Your task to perform on an android device: Open CNN.com Image 0: 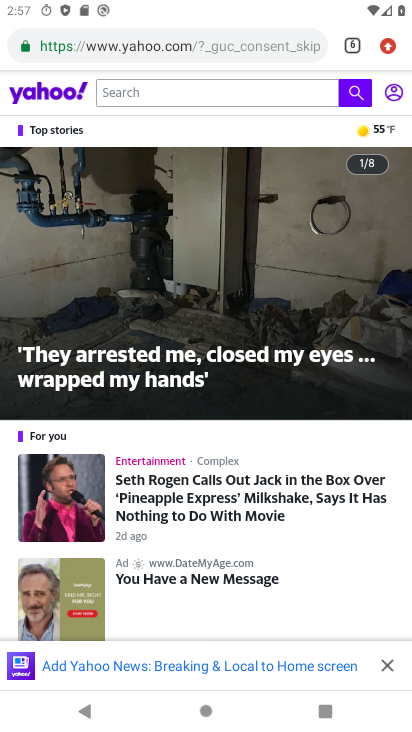
Step 0: drag from (379, 43) to (211, 144)
Your task to perform on an android device: Open CNN.com Image 1: 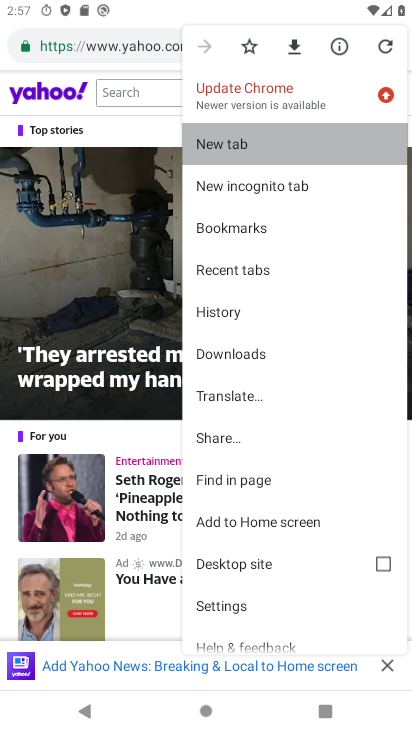
Step 1: click (211, 144)
Your task to perform on an android device: Open CNN.com Image 2: 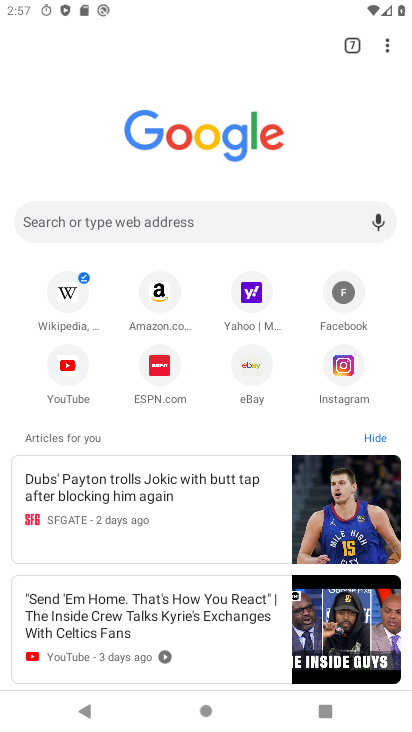
Step 2: click (68, 213)
Your task to perform on an android device: Open CNN.com Image 3: 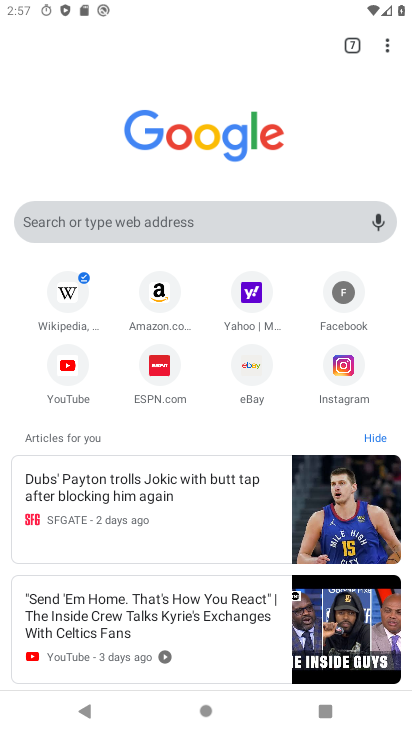
Step 3: click (71, 223)
Your task to perform on an android device: Open CNN.com Image 4: 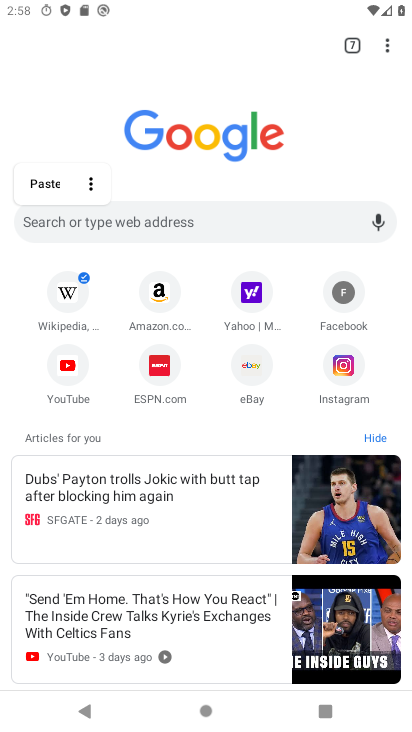
Step 4: type "cnn.com"
Your task to perform on an android device: Open CNN.com Image 5: 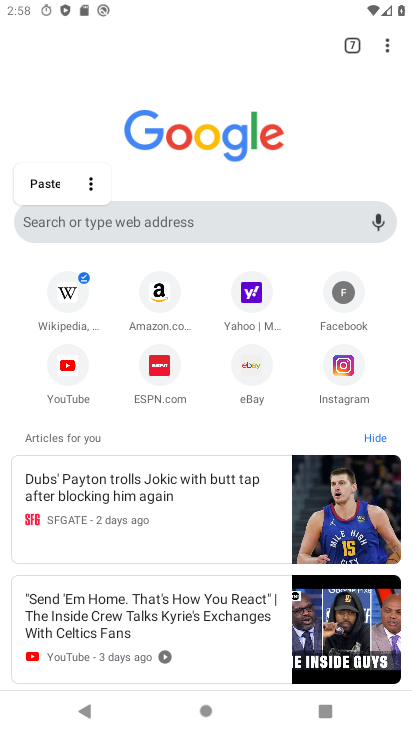
Step 5: click (107, 213)
Your task to perform on an android device: Open CNN.com Image 6: 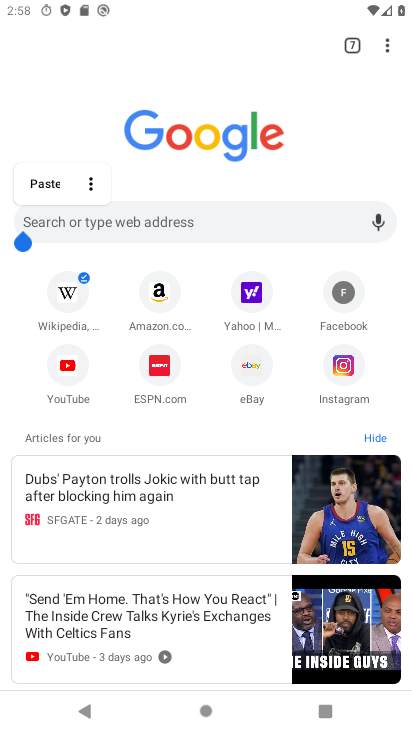
Step 6: click (95, 176)
Your task to perform on an android device: Open CNN.com Image 7: 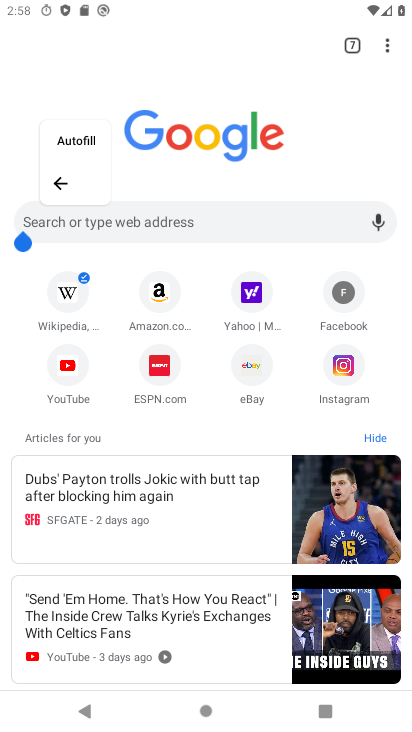
Step 7: click (165, 216)
Your task to perform on an android device: Open CNN.com Image 8: 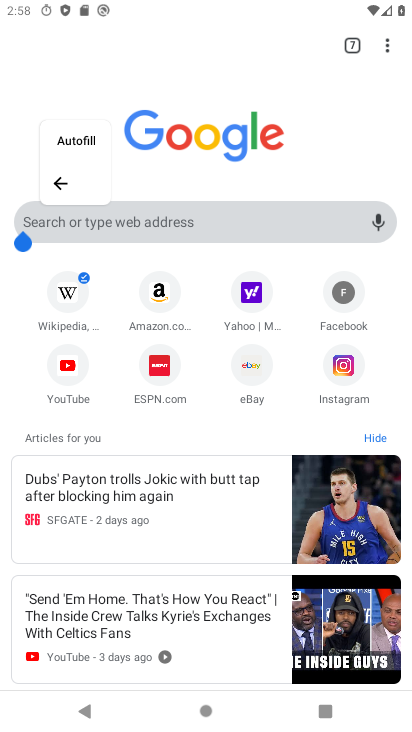
Step 8: click (139, 217)
Your task to perform on an android device: Open CNN.com Image 9: 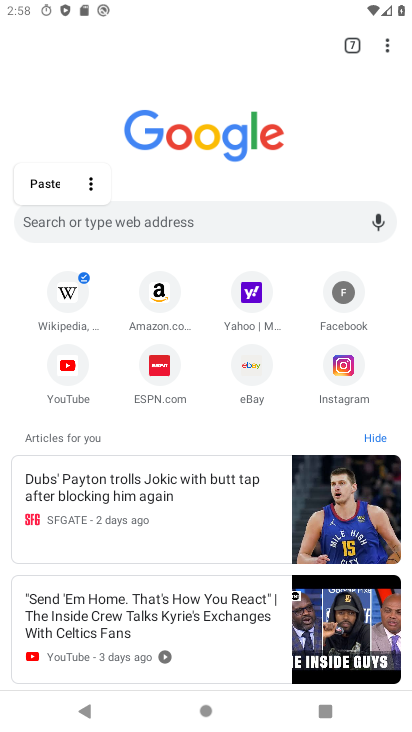
Step 9: type "CNN.COM"
Your task to perform on an android device: Open CNN.com Image 10: 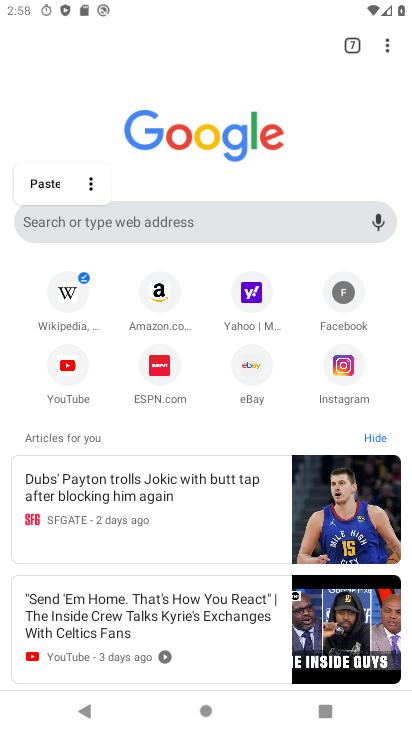
Step 10: click (130, 234)
Your task to perform on an android device: Open CNN.com Image 11: 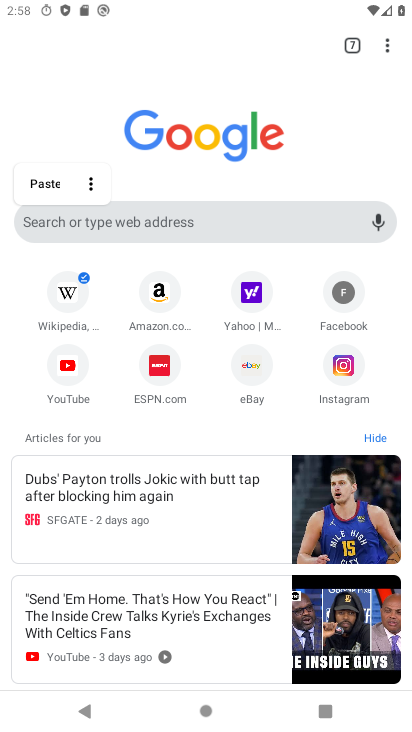
Step 11: click (130, 234)
Your task to perform on an android device: Open CNN.com Image 12: 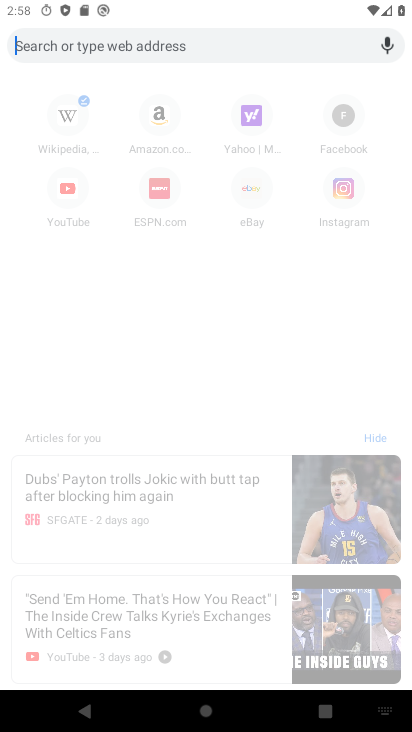
Step 12: type "CNN.COM"
Your task to perform on an android device: Open CNN.com Image 13: 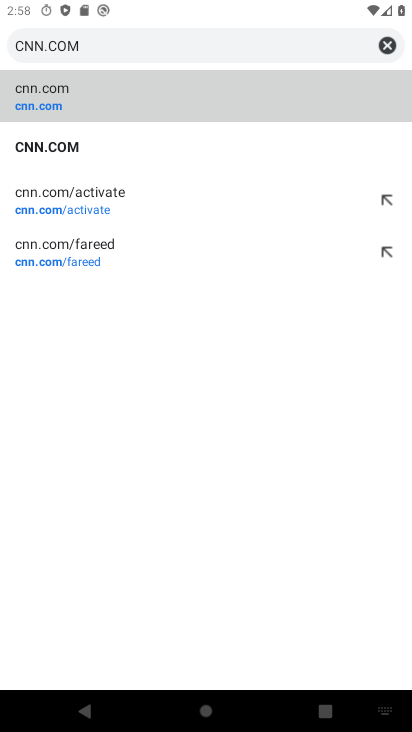
Step 13: click (68, 197)
Your task to perform on an android device: Open CNN.com Image 14: 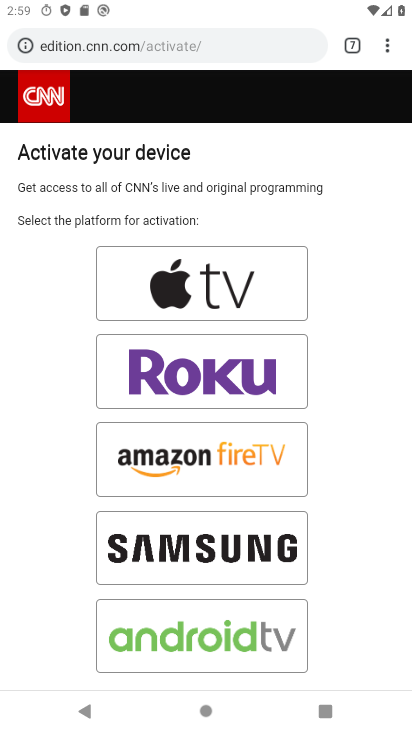
Step 14: task complete